Your task to perform on an android device: Add "dell alienware" to the cart on walmart.com, then select checkout. Image 0: 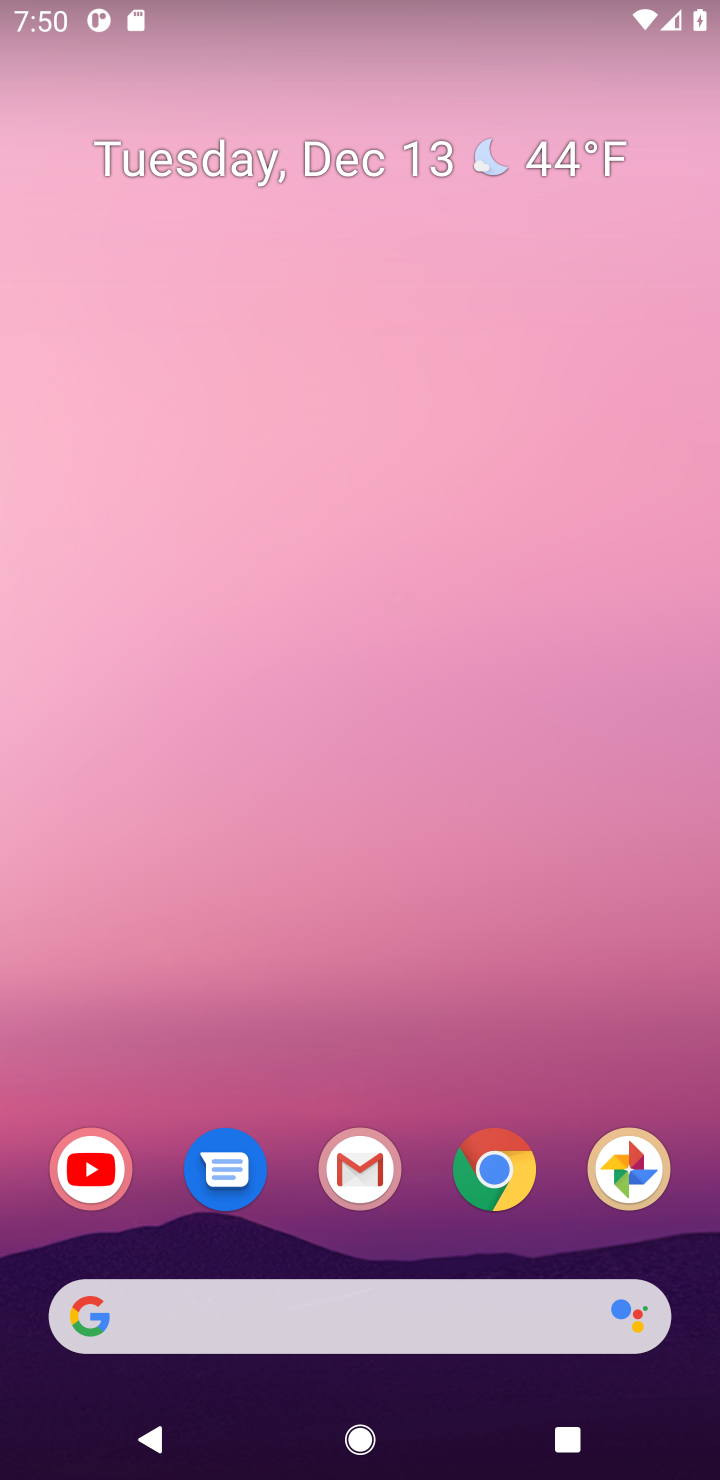
Step 0: click (311, 1298)
Your task to perform on an android device: Add "dell alienware" to the cart on walmart.com, then select checkout. Image 1: 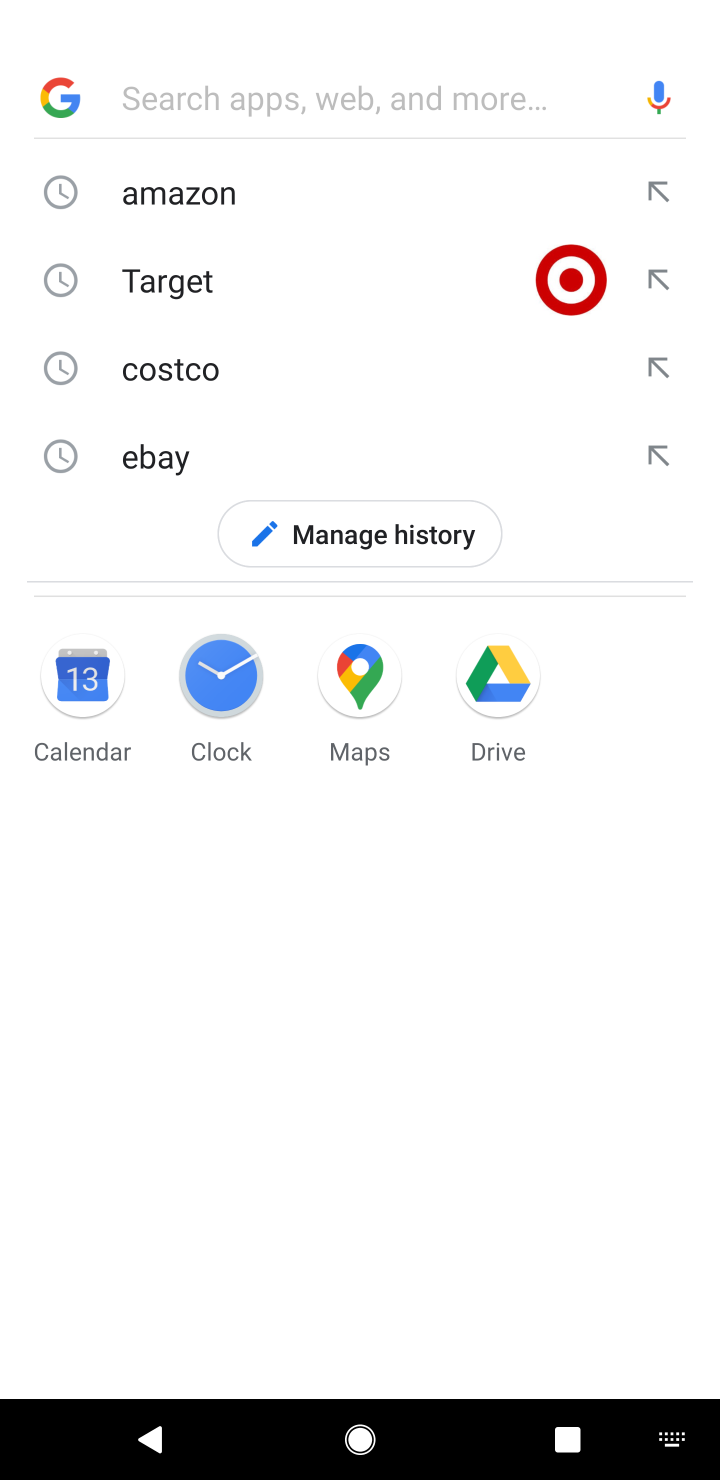
Step 1: type "walmart"
Your task to perform on an android device: Add "dell alienware" to the cart on walmart.com, then select checkout. Image 2: 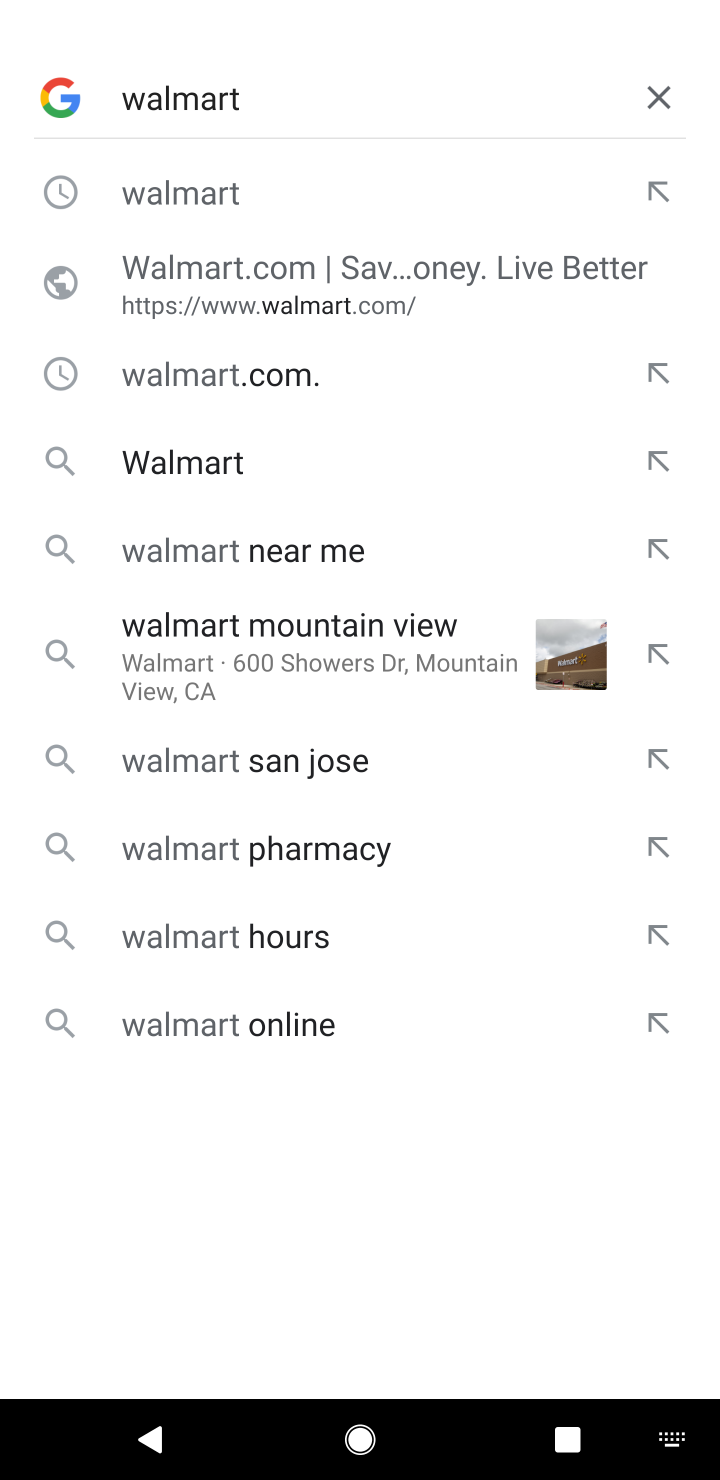
Step 2: click (166, 189)
Your task to perform on an android device: Add "dell alienware" to the cart on walmart.com, then select checkout. Image 3: 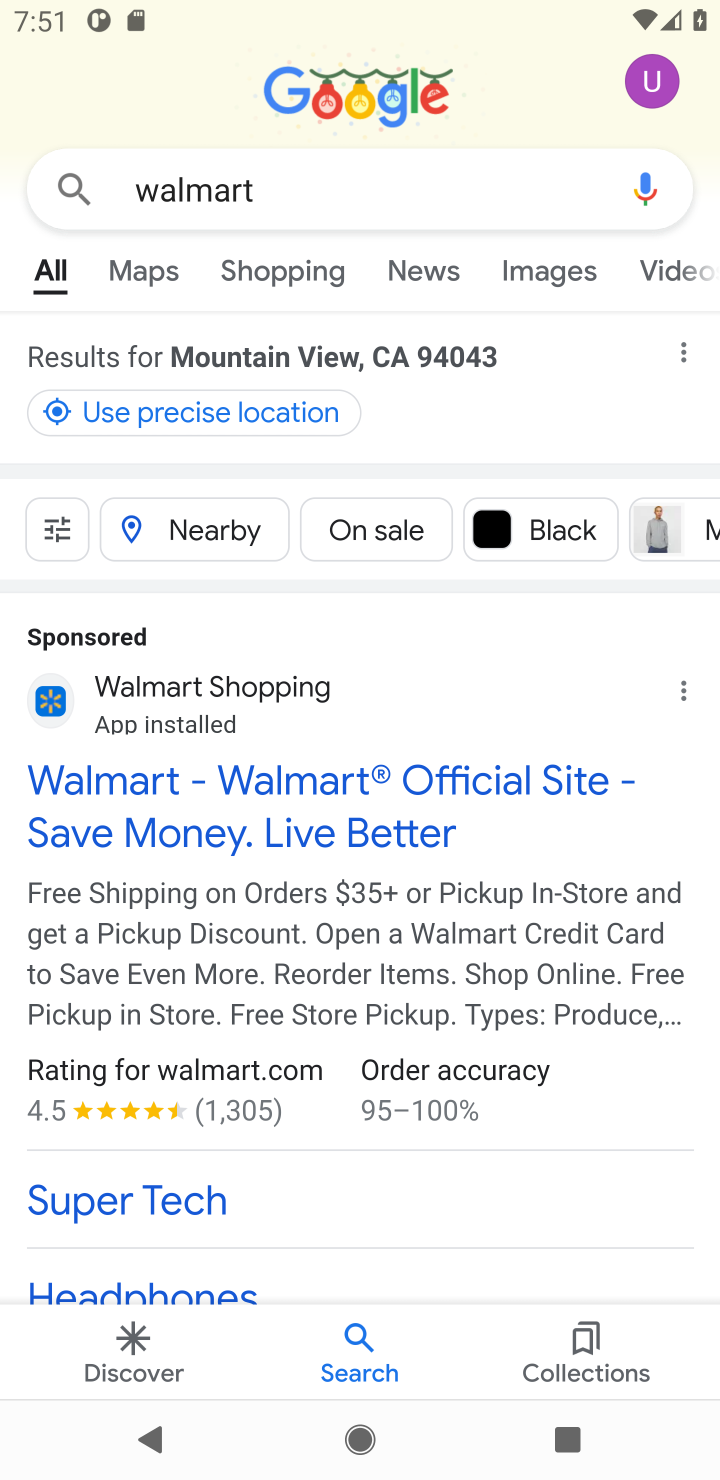
Step 3: click (257, 740)
Your task to perform on an android device: Add "dell alienware" to the cart on walmart.com, then select checkout. Image 4: 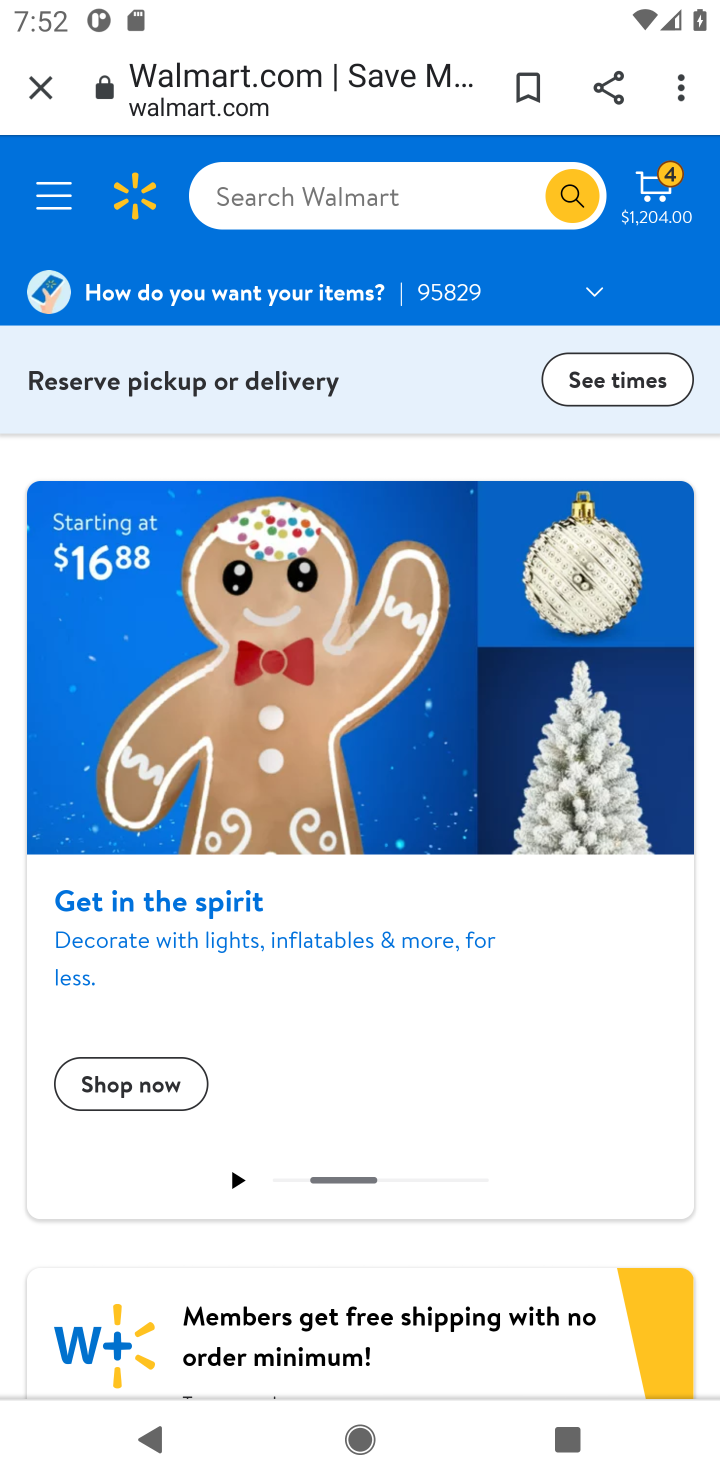
Step 4: click (378, 180)
Your task to perform on an android device: Add "dell alienware" to the cart on walmart.com, then select checkout. Image 5: 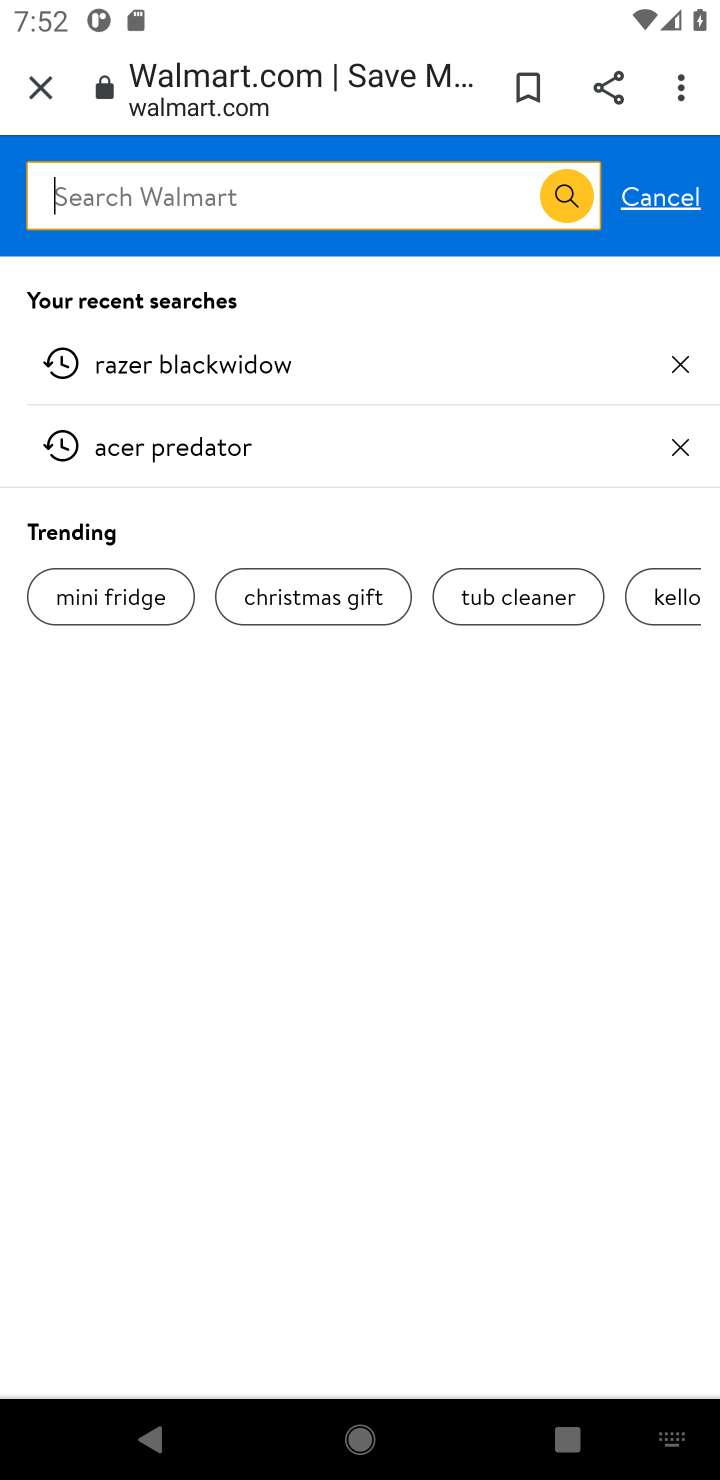
Step 5: type "dell alienware"
Your task to perform on an android device: Add "dell alienware" to the cart on walmart.com, then select checkout. Image 6: 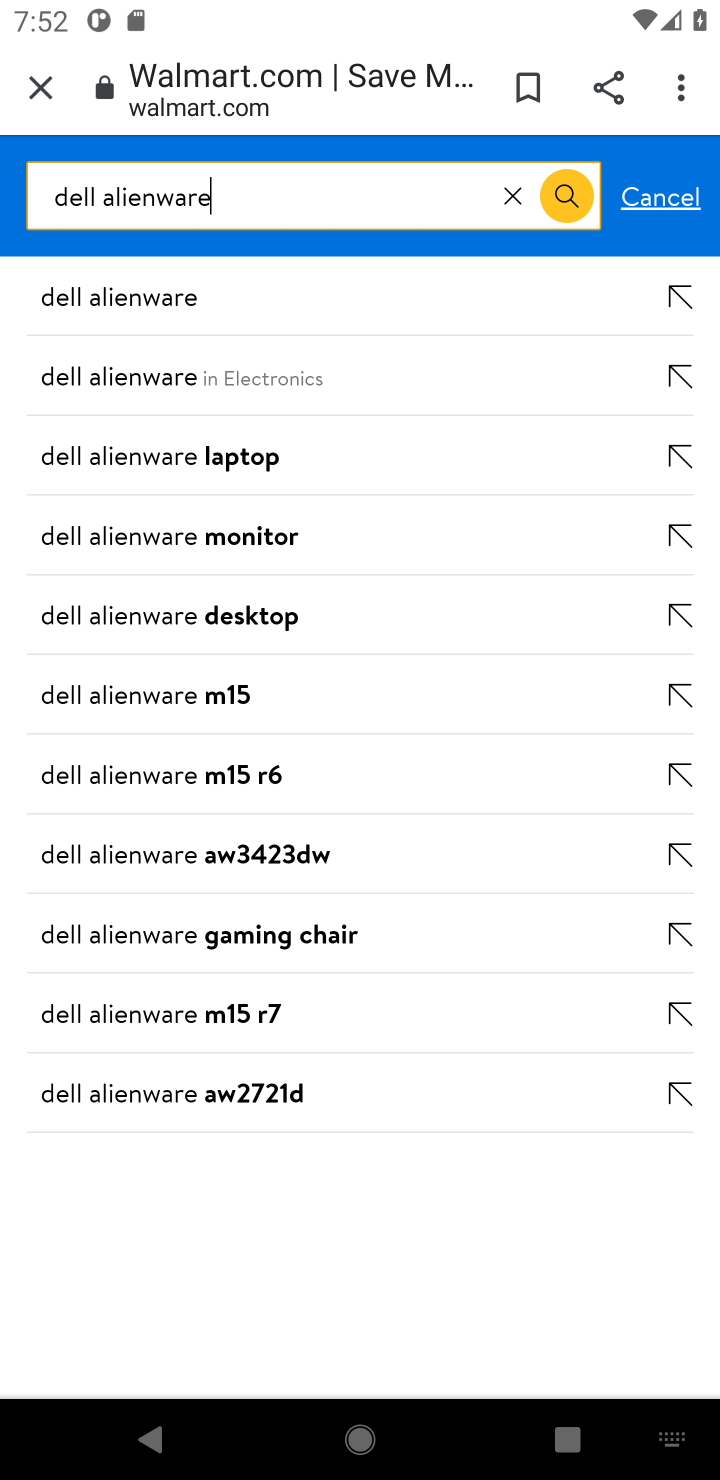
Step 6: click (255, 285)
Your task to perform on an android device: Add "dell alienware" to the cart on walmart.com, then select checkout. Image 7: 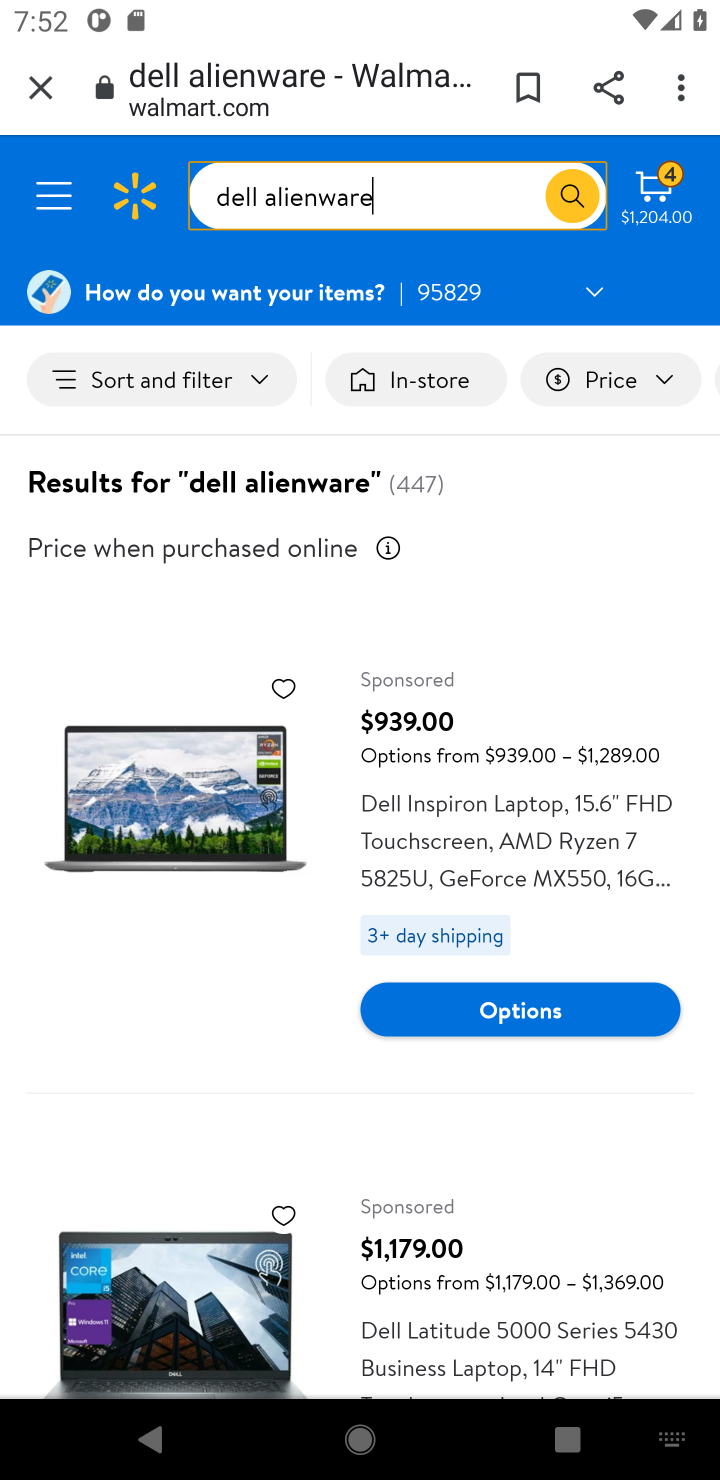
Step 7: click (539, 1012)
Your task to perform on an android device: Add "dell alienware" to the cart on walmart.com, then select checkout. Image 8: 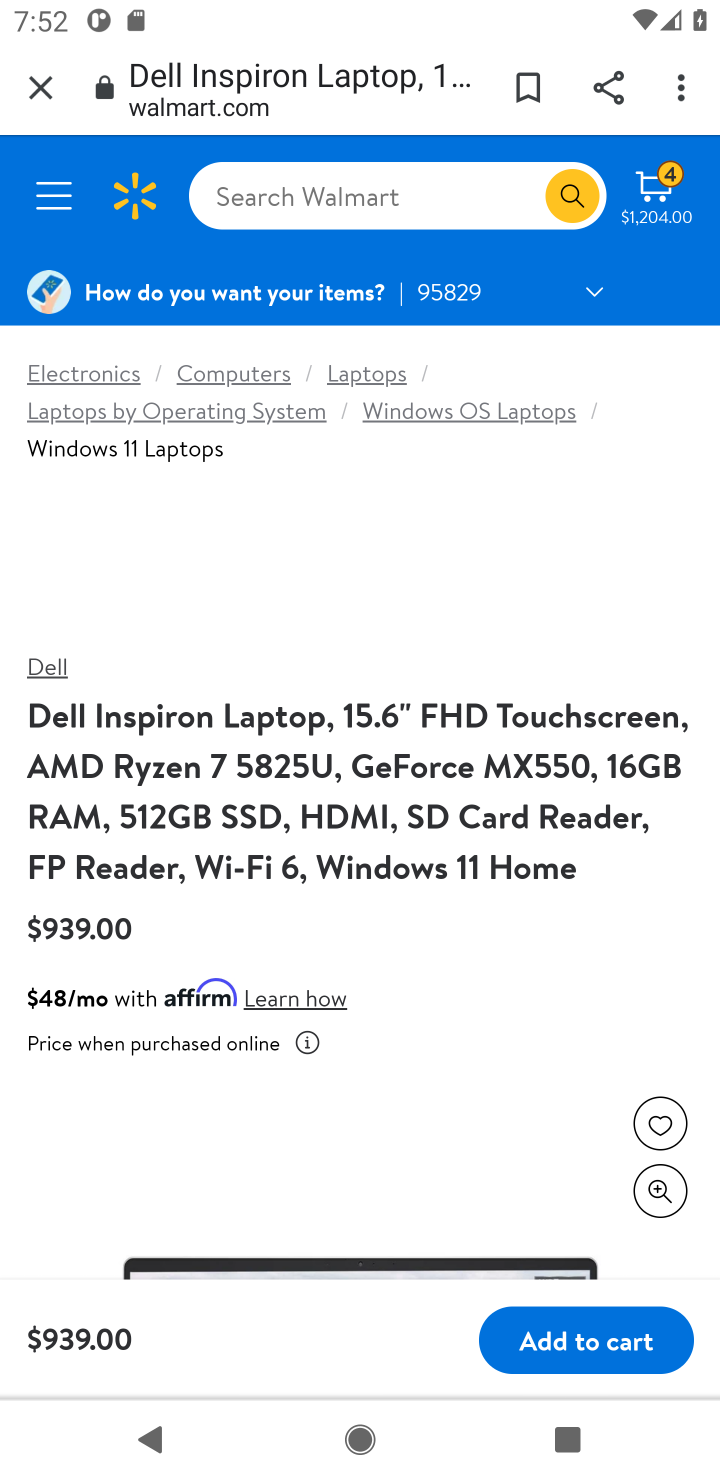
Step 8: click (597, 1339)
Your task to perform on an android device: Add "dell alienware" to the cart on walmart.com, then select checkout. Image 9: 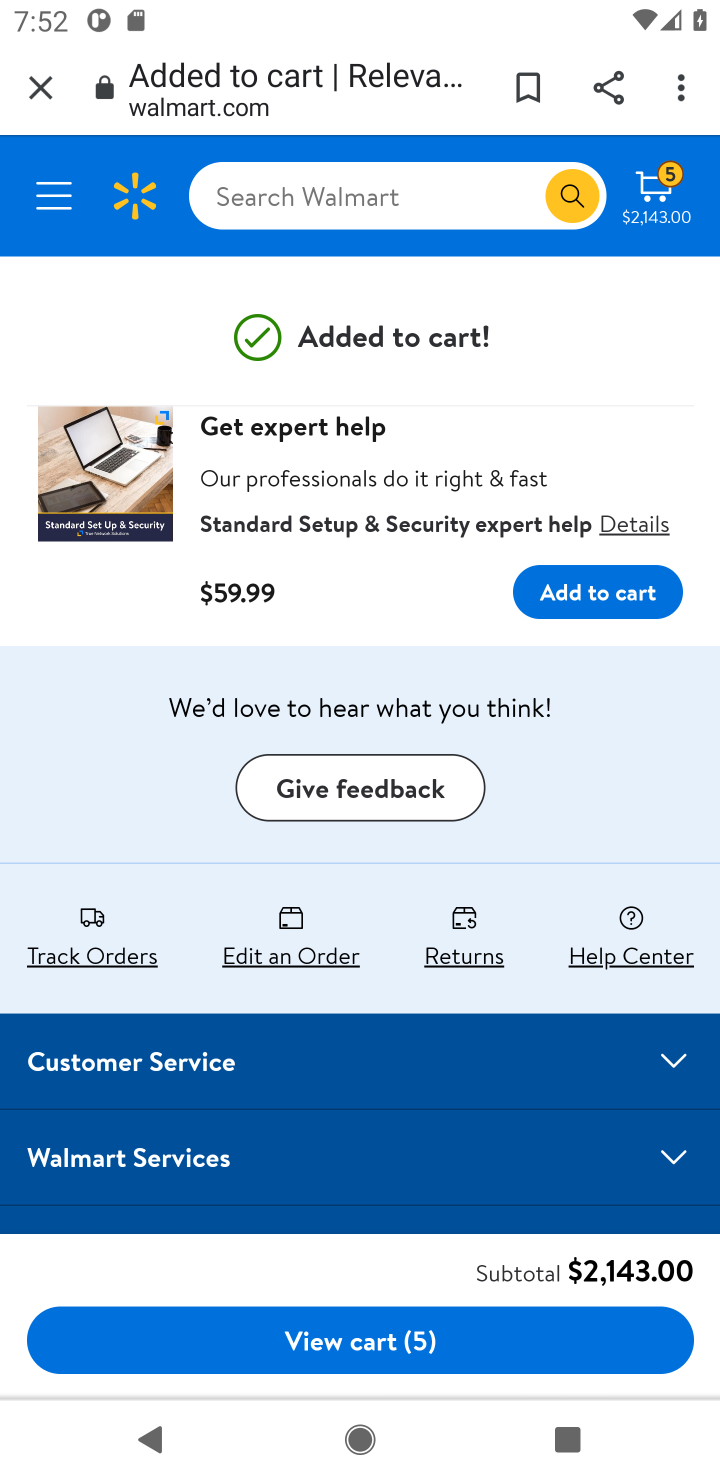
Step 9: task complete